Your task to perform on an android device: When is my next appointment? Image 0: 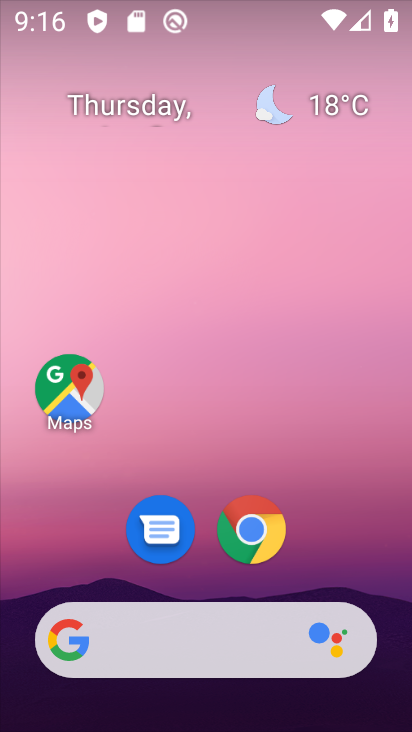
Step 0: drag from (347, 438) to (318, 143)
Your task to perform on an android device: When is my next appointment? Image 1: 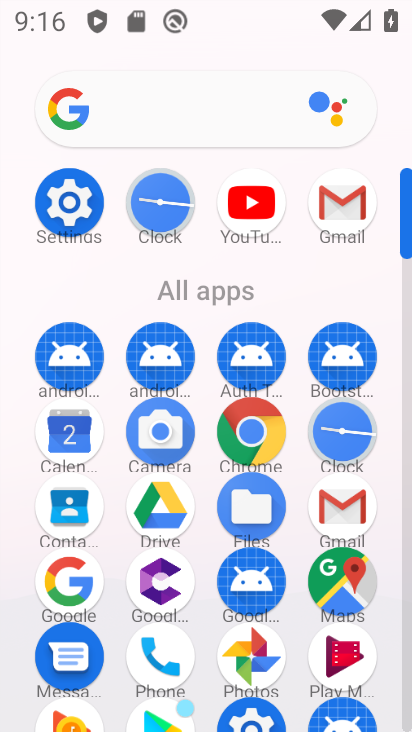
Step 1: click (76, 448)
Your task to perform on an android device: When is my next appointment? Image 2: 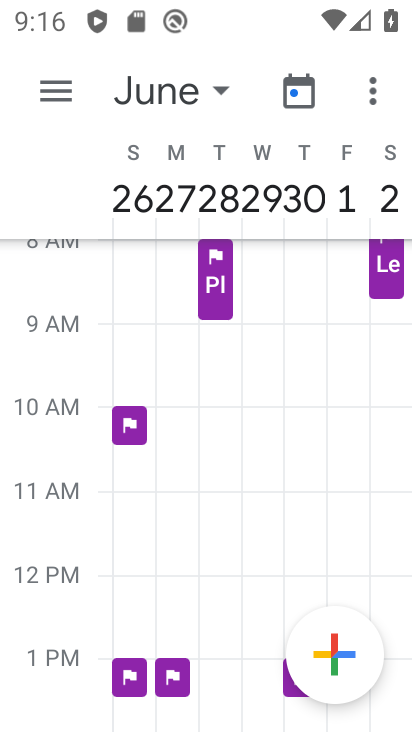
Step 2: click (225, 87)
Your task to perform on an android device: When is my next appointment? Image 3: 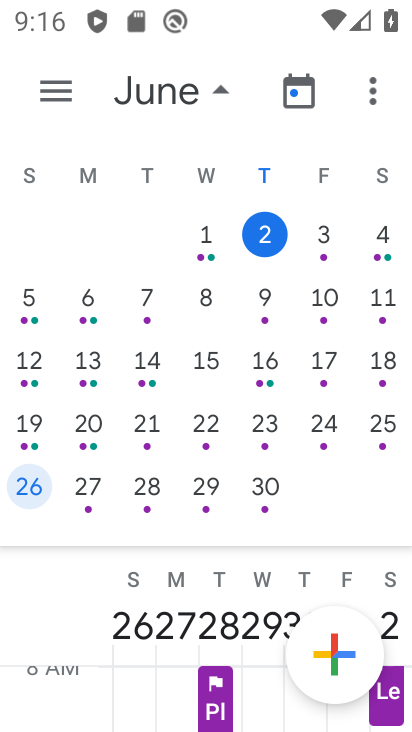
Step 3: click (58, 90)
Your task to perform on an android device: When is my next appointment? Image 4: 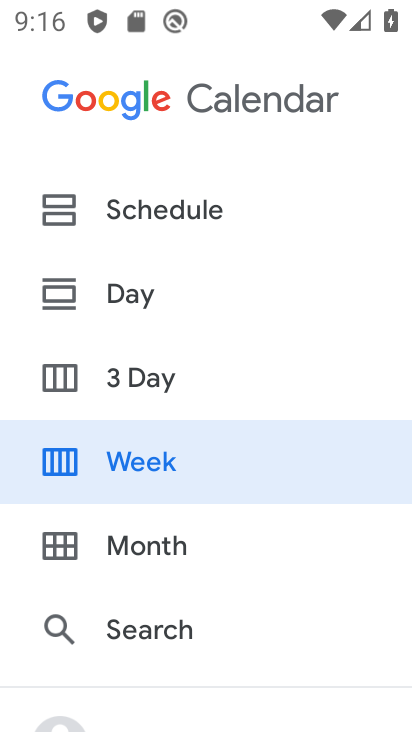
Step 4: click (119, 206)
Your task to perform on an android device: When is my next appointment? Image 5: 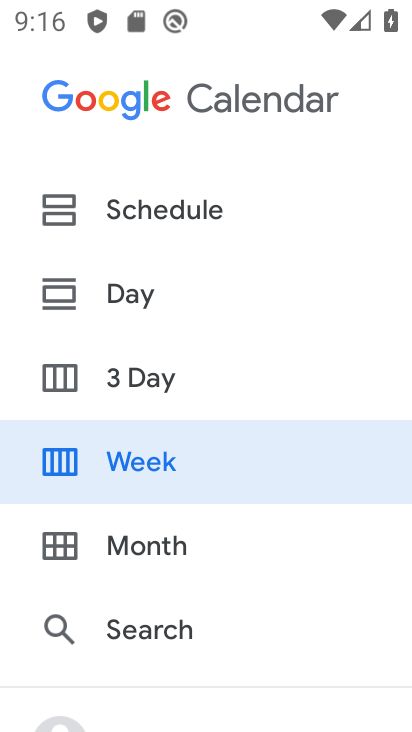
Step 5: click (128, 213)
Your task to perform on an android device: When is my next appointment? Image 6: 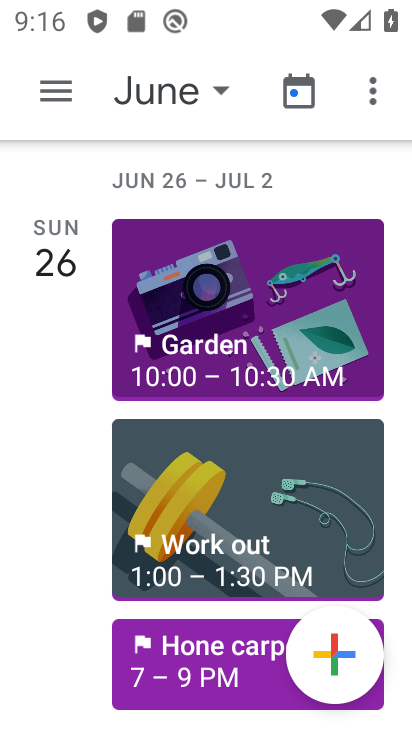
Step 6: task complete